Your task to perform on an android device: Go to network settings Image 0: 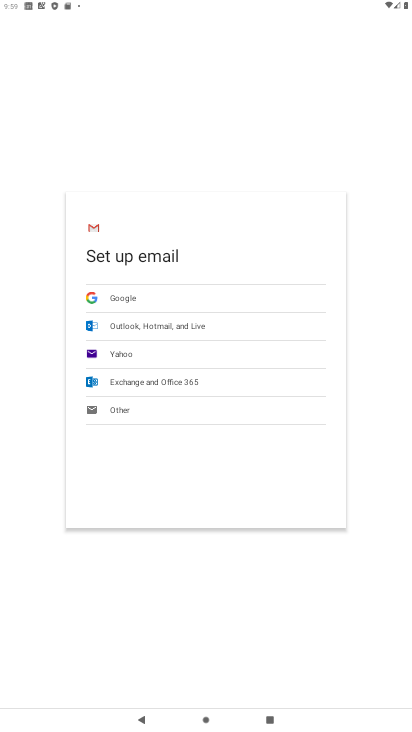
Step 0: press home button
Your task to perform on an android device: Go to network settings Image 1: 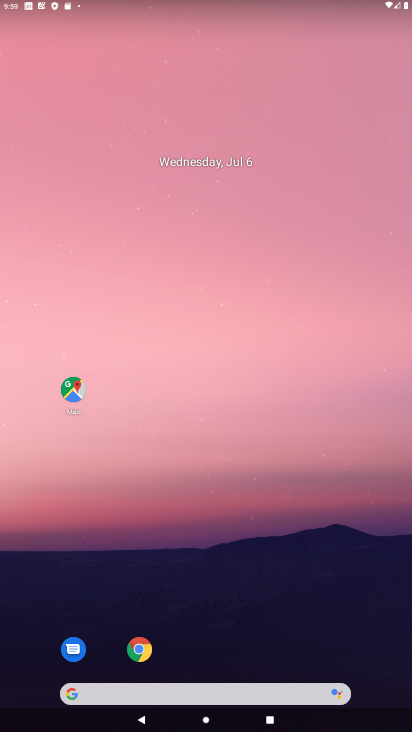
Step 1: drag from (186, 686) to (200, 0)
Your task to perform on an android device: Go to network settings Image 2: 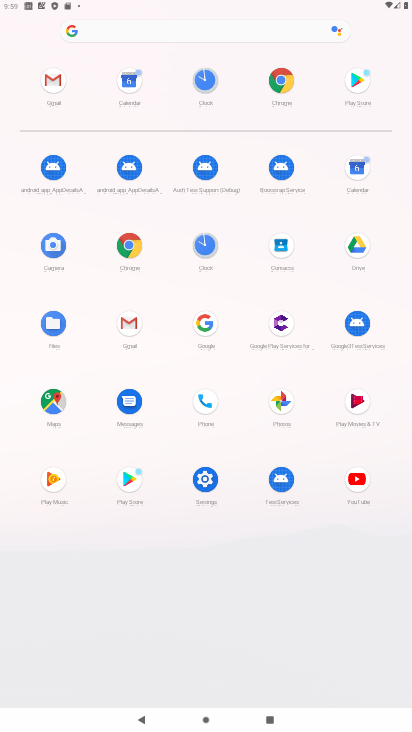
Step 2: click (198, 478)
Your task to perform on an android device: Go to network settings Image 3: 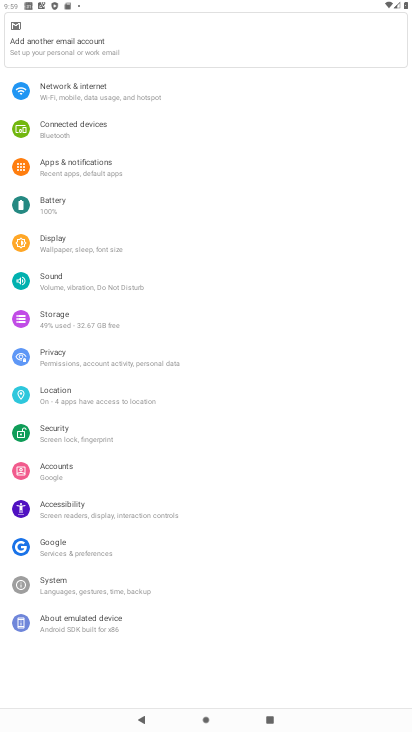
Step 3: click (90, 104)
Your task to perform on an android device: Go to network settings Image 4: 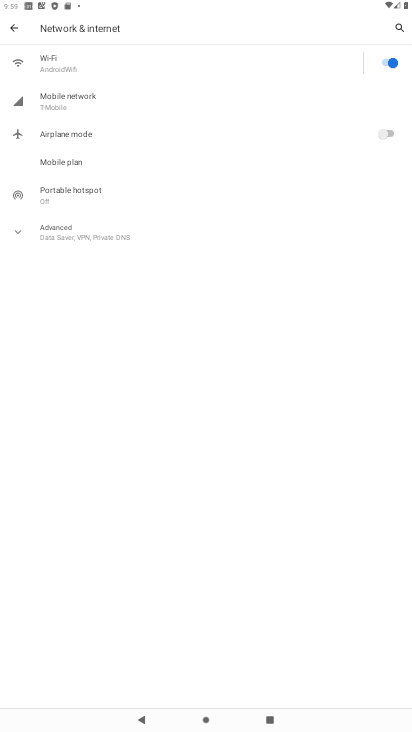
Step 4: task complete